Your task to perform on an android device: open app "Calculator" Image 0: 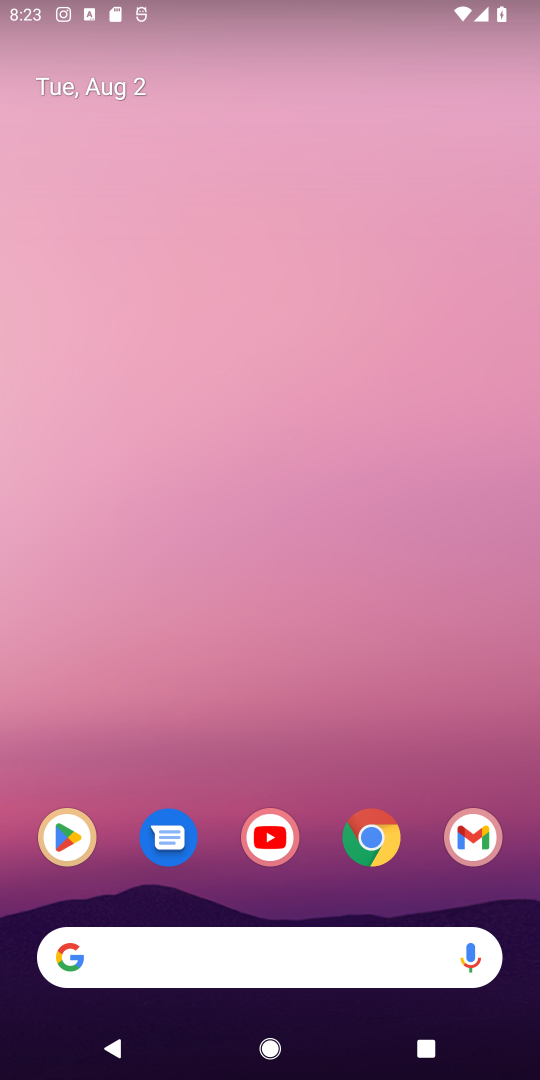
Step 0: click (68, 846)
Your task to perform on an android device: open app "Calculator" Image 1: 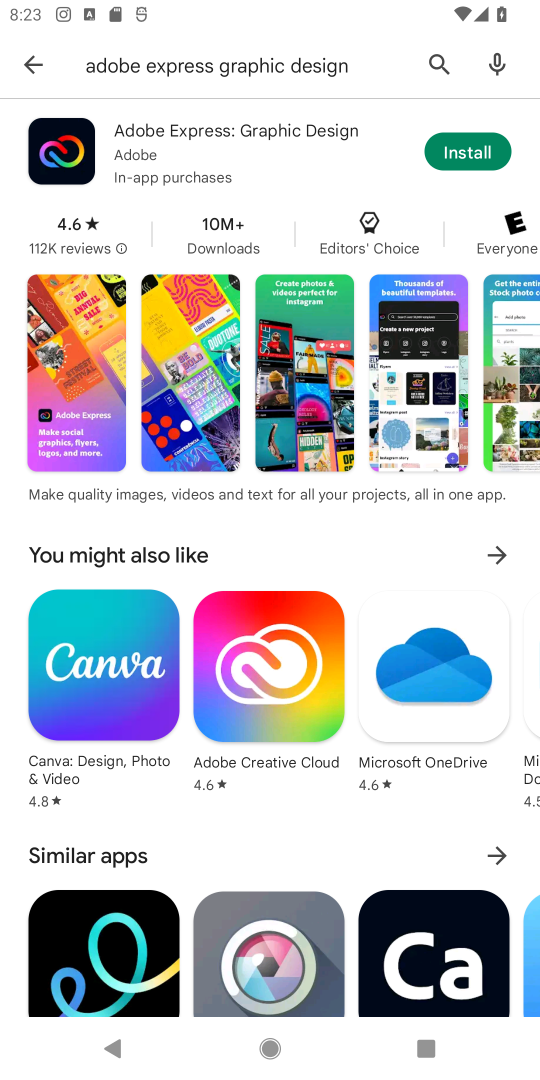
Step 1: click (434, 63)
Your task to perform on an android device: open app "Calculator" Image 2: 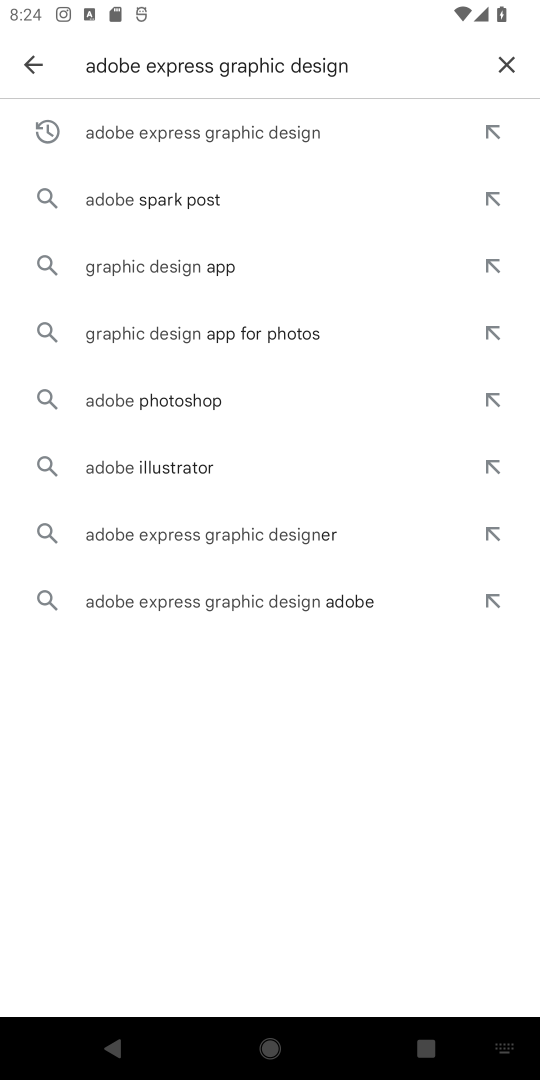
Step 2: click (503, 64)
Your task to perform on an android device: open app "Calculator" Image 3: 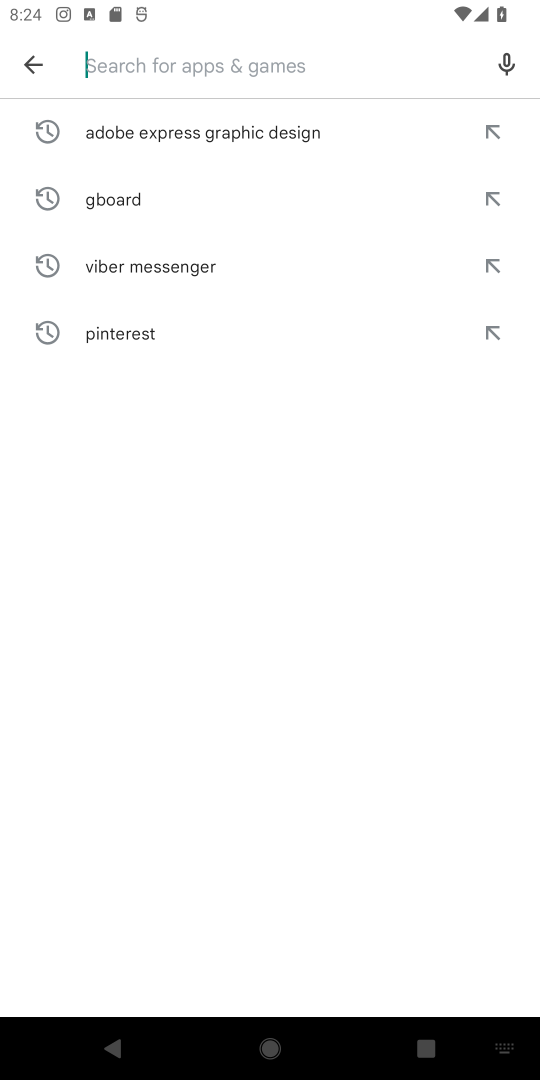
Step 3: type "Calculator"
Your task to perform on an android device: open app "Calculator" Image 4: 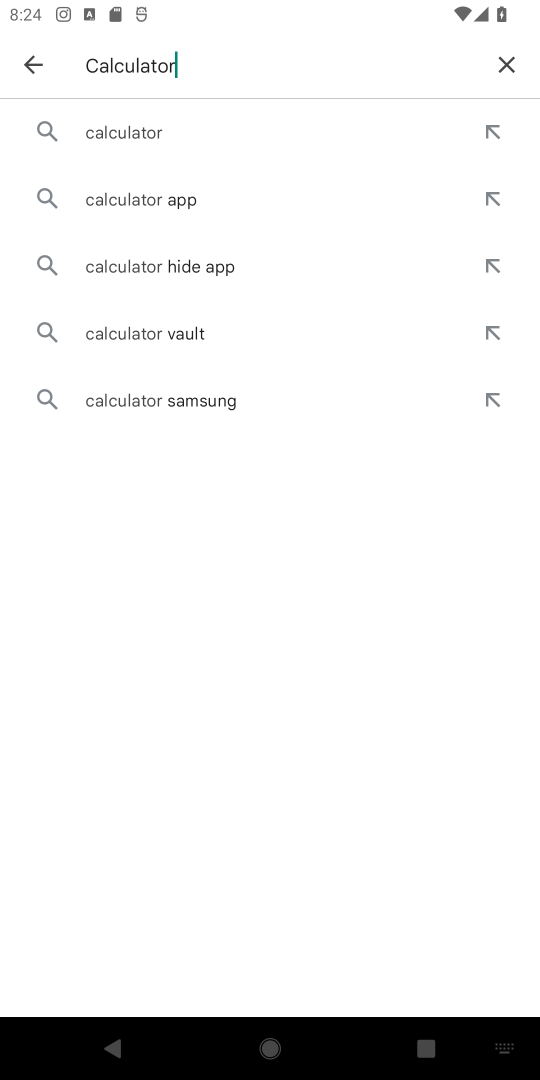
Step 4: click (110, 130)
Your task to perform on an android device: open app "Calculator" Image 5: 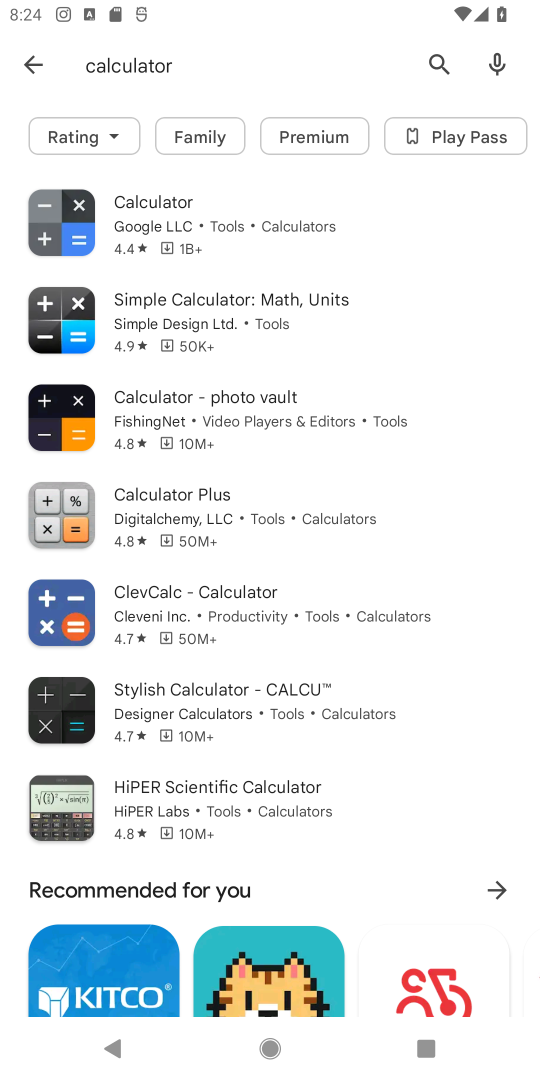
Step 5: click (129, 240)
Your task to perform on an android device: open app "Calculator" Image 6: 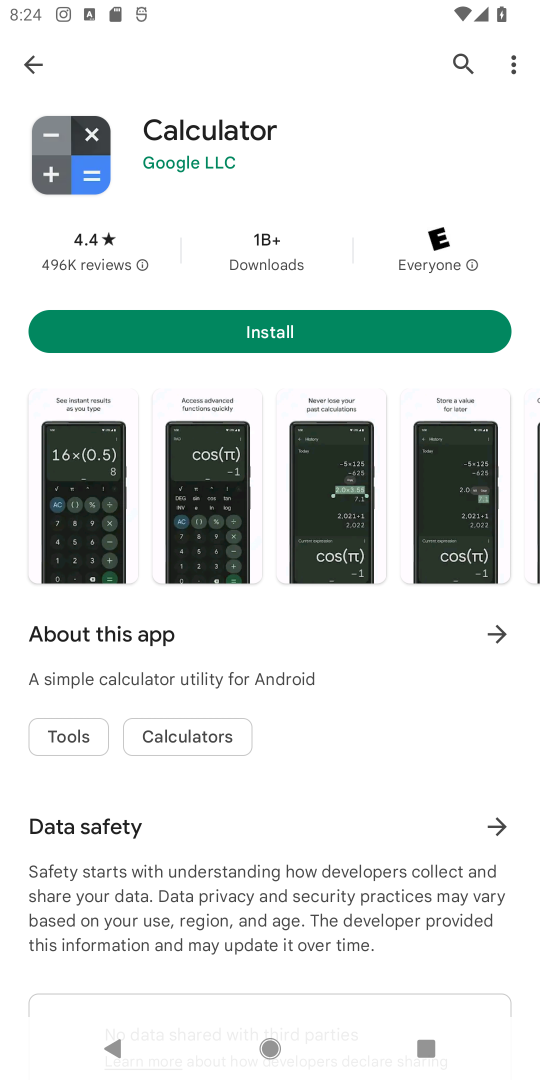
Step 6: task complete